Your task to perform on an android device: Open Yahoo.com Image 0: 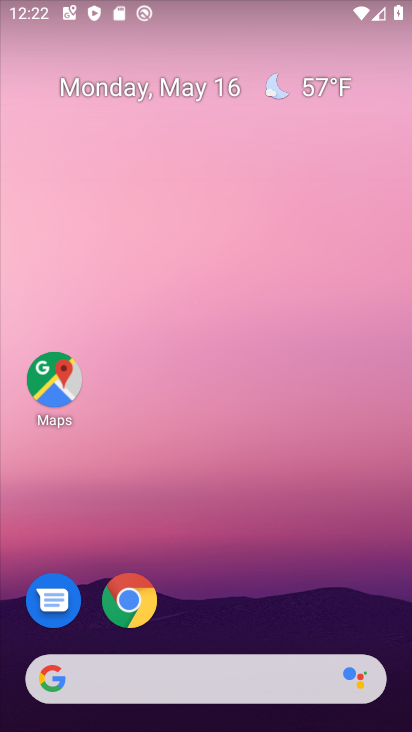
Step 0: click (130, 595)
Your task to perform on an android device: Open Yahoo.com Image 1: 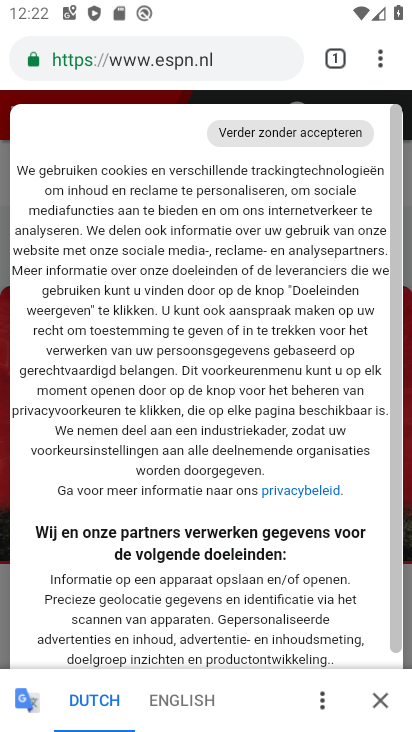
Step 1: click (338, 53)
Your task to perform on an android device: Open Yahoo.com Image 2: 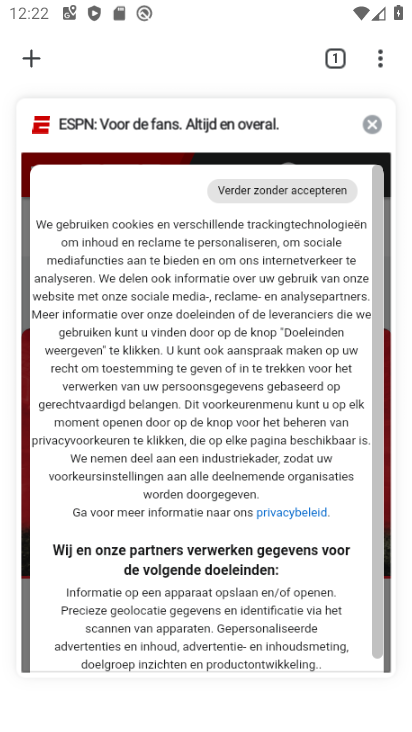
Step 2: click (26, 52)
Your task to perform on an android device: Open Yahoo.com Image 3: 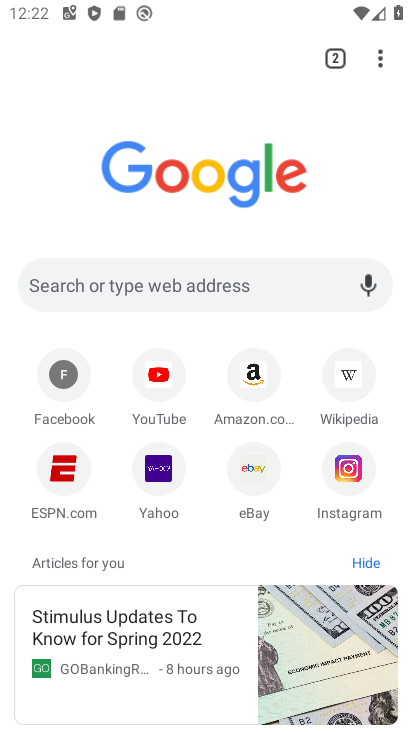
Step 3: click (164, 488)
Your task to perform on an android device: Open Yahoo.com Image 4: 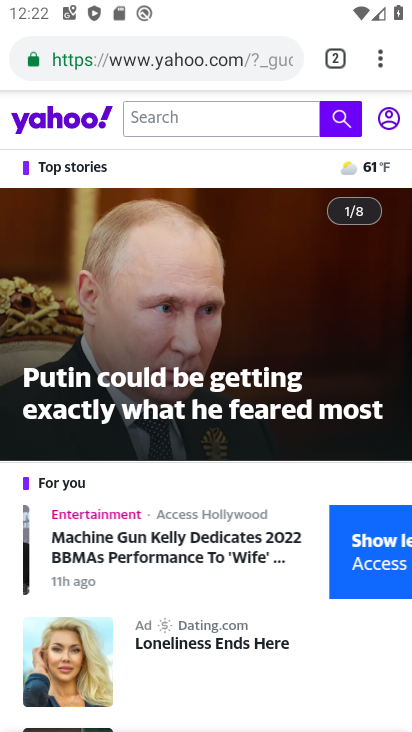
Step 4: task complete